Your task to perform on an android device: Open Amazon Image 0: 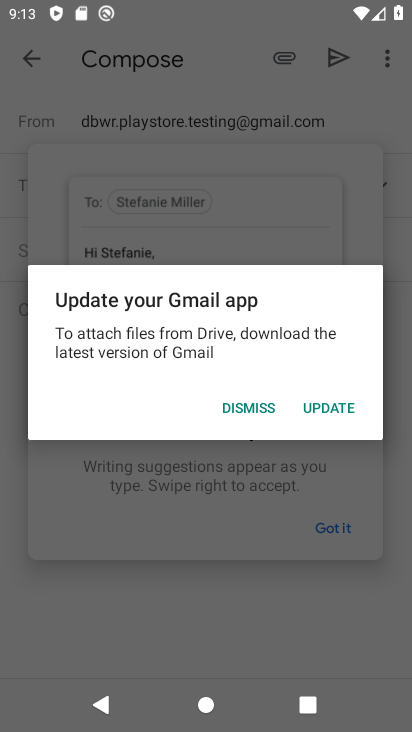
Step 0: press back button
Your task to perform on an android device: Open Amazon Image 1: 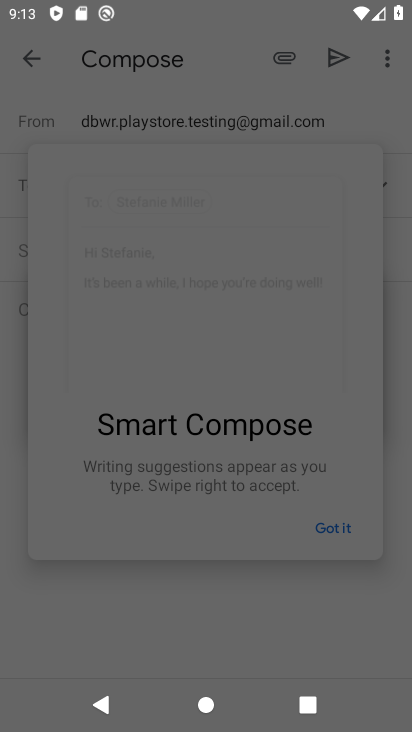
Step 1: press home button
Your task to perform on an android device: Open Amazon Image 2: 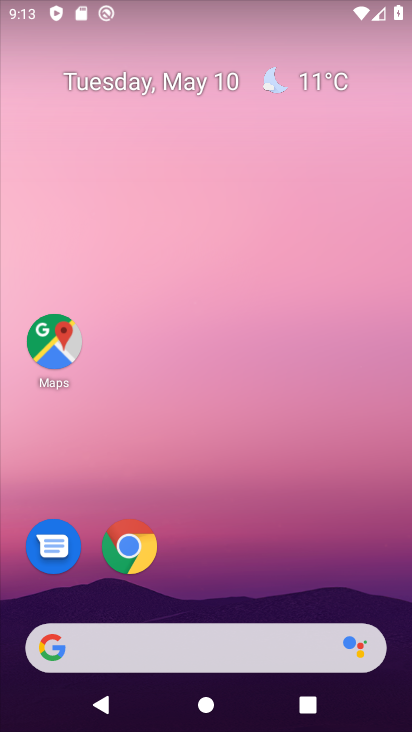
Step 2: click (122, 548)
Your task to perform on an android device: Open Amazon Image 3: 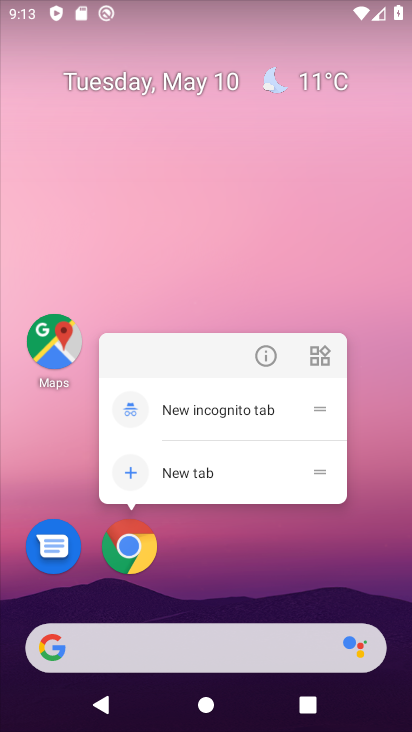
Step 3: click (122, 548)
Your task to perform on an android device: Open Amazon Image 4: 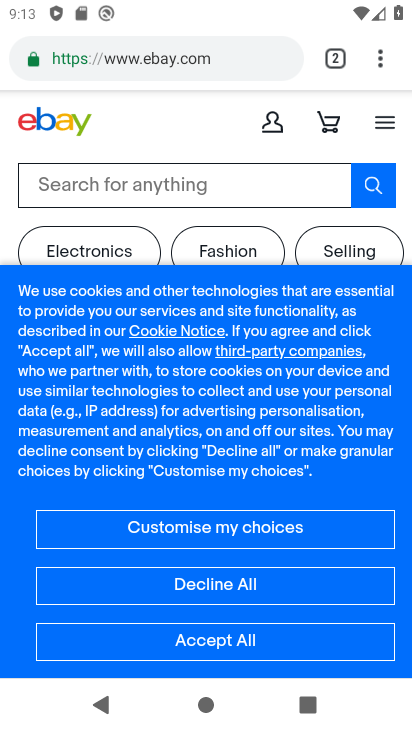
Step 4: click (330, 58)
Your task to perform on an android device: Open Amazon Image 5: 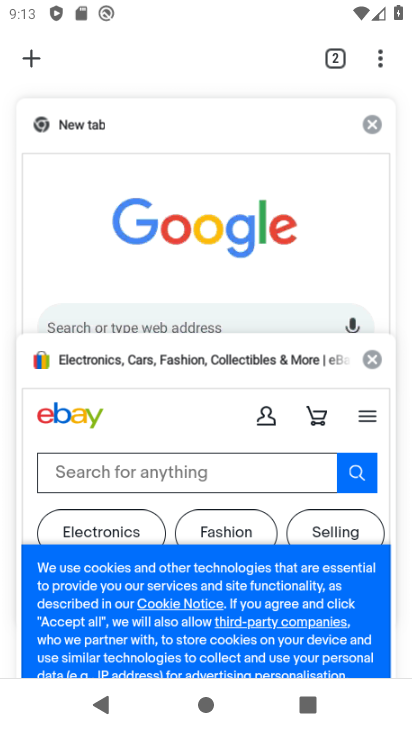
Step 5: click (67, 127)
Your task to perform on an android device: Open Amazon Image 6: 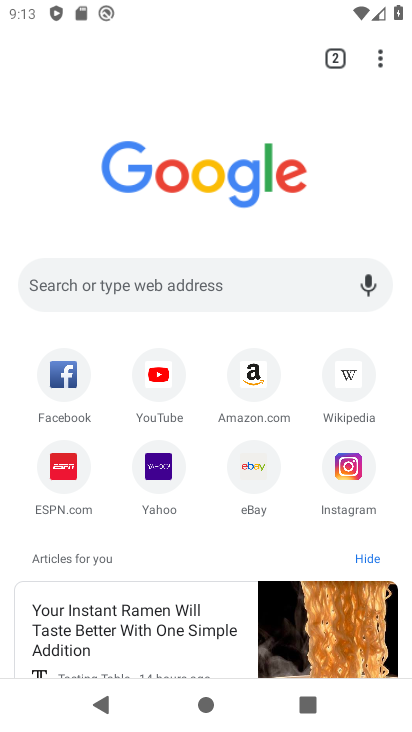
Step 6: click (259, 386)
Your task to perform on an android device: Open Amazon Image 7: 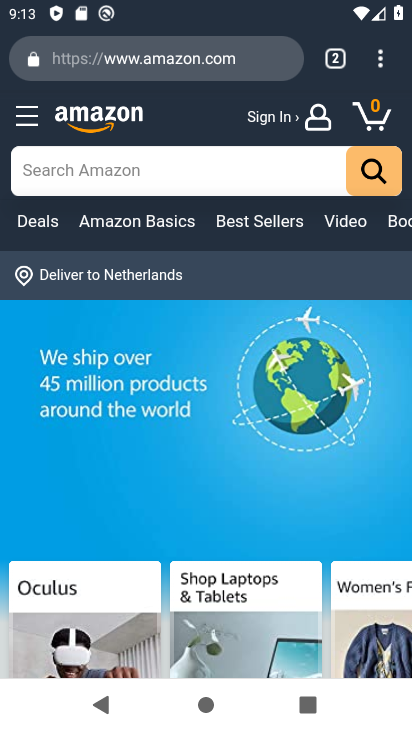
Step 7: task complete